Your task to perform on an android device: turn on sleep mode Image 0: 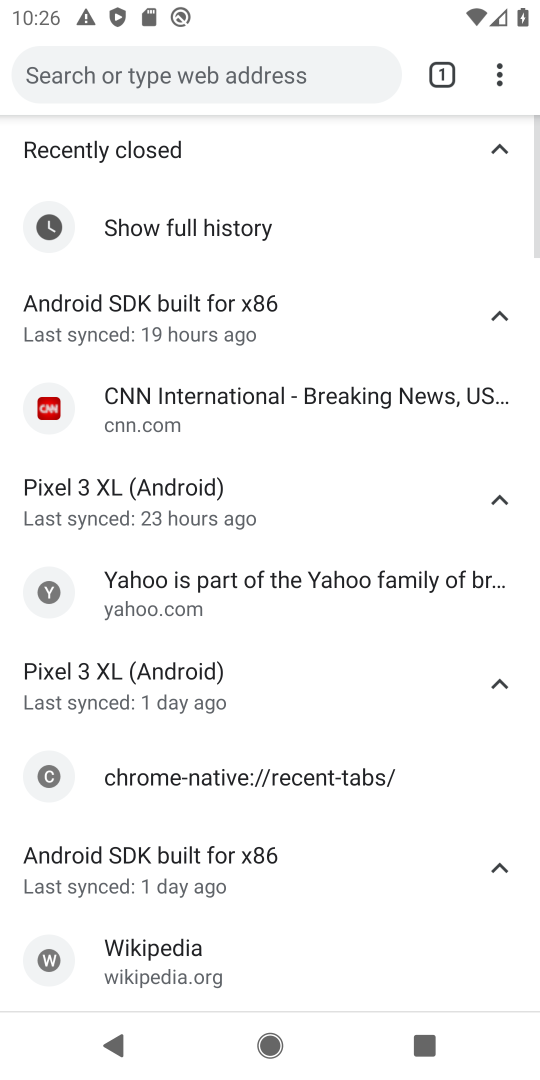
Step 0: press home button
Your task to perform on an android device: turn on sleep mode Image 1: 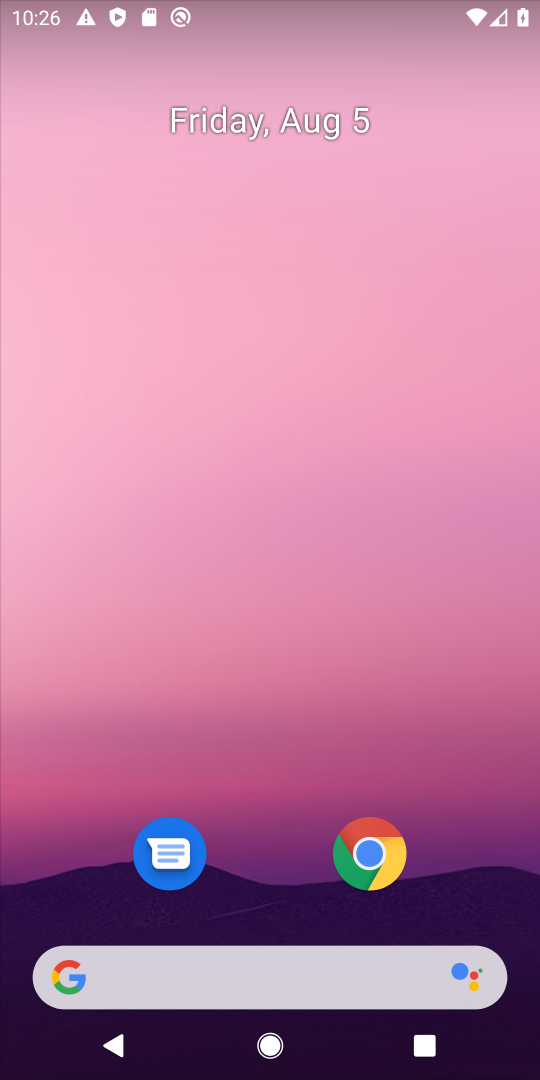
Step 1: drag from (261, 826) to (257, 264)
Your task to perform on an android device: turn on sleep mode Image 2: 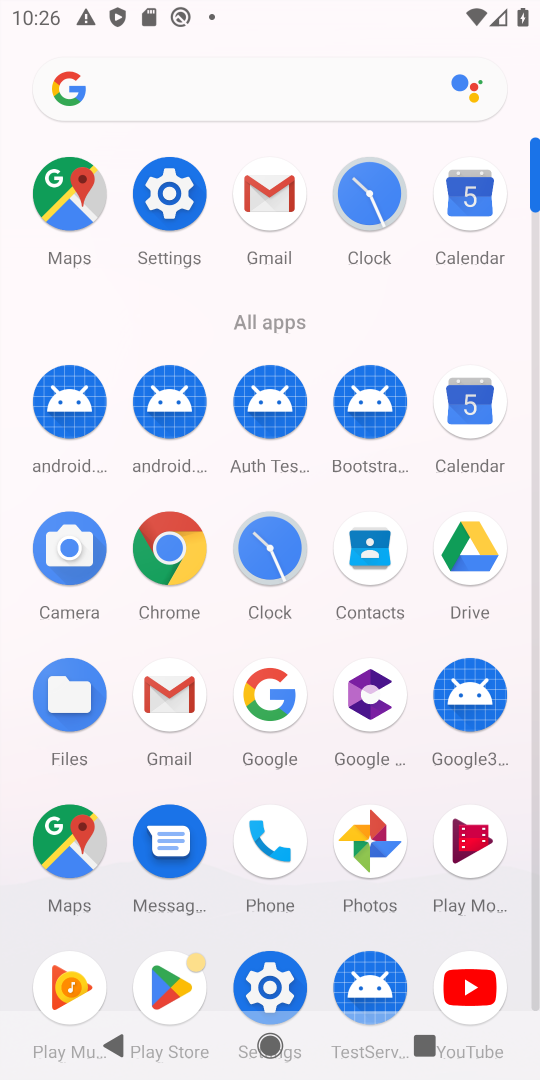
Step 2: click (171, 203)
Your task to perform on an android device: turn on sleep mode Image 3: 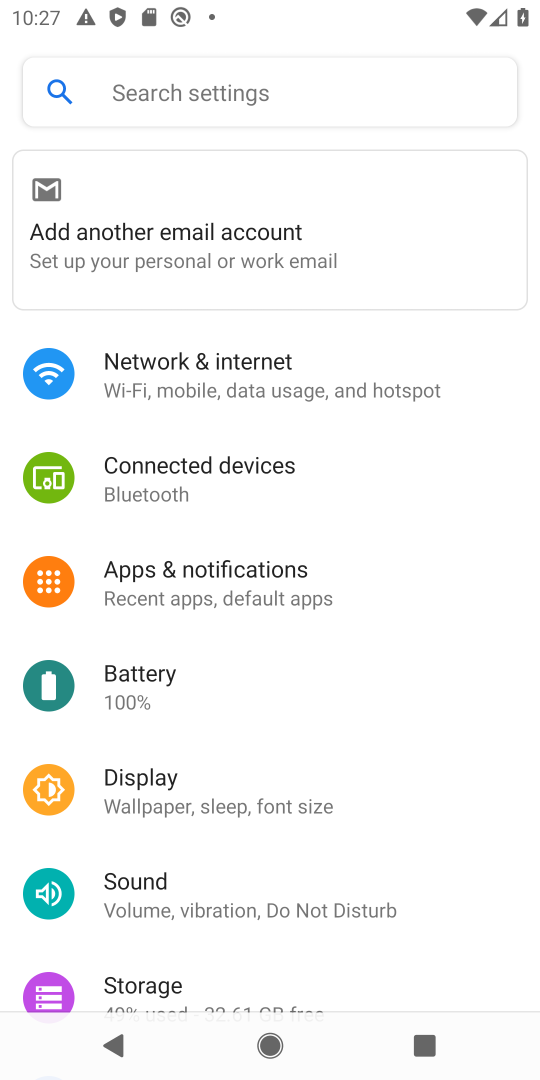
Step 3: click (179, 782)
Your task to perform on an android device: turn on sleep mode Image 4: 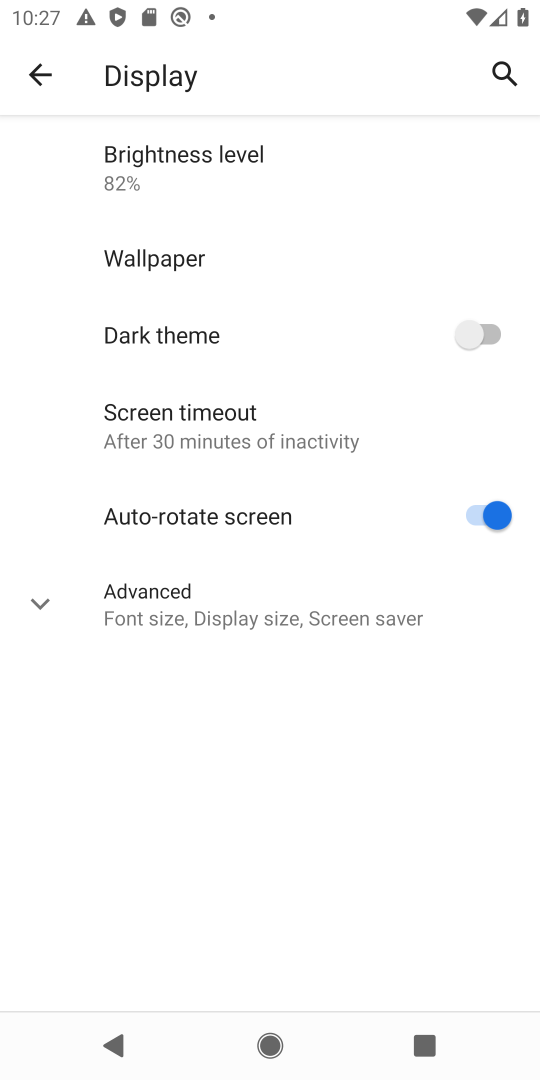
Step 4: click (345, 604)
Your task to perform on an android device: turn on sleep mode Image 5: 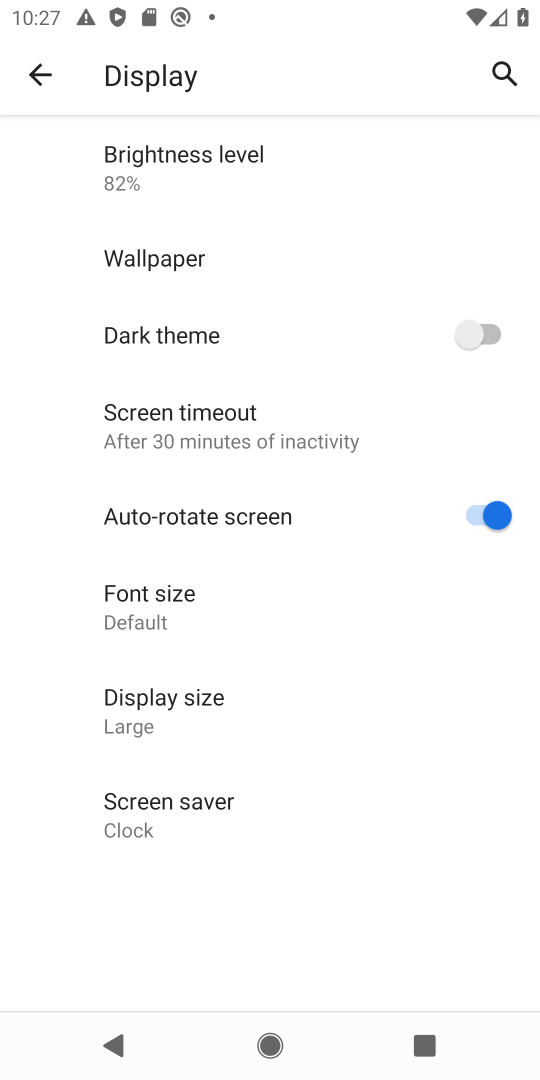
Step 5: task complete